Your task to perform on an android device: add a contact in the contacts app Image 0: 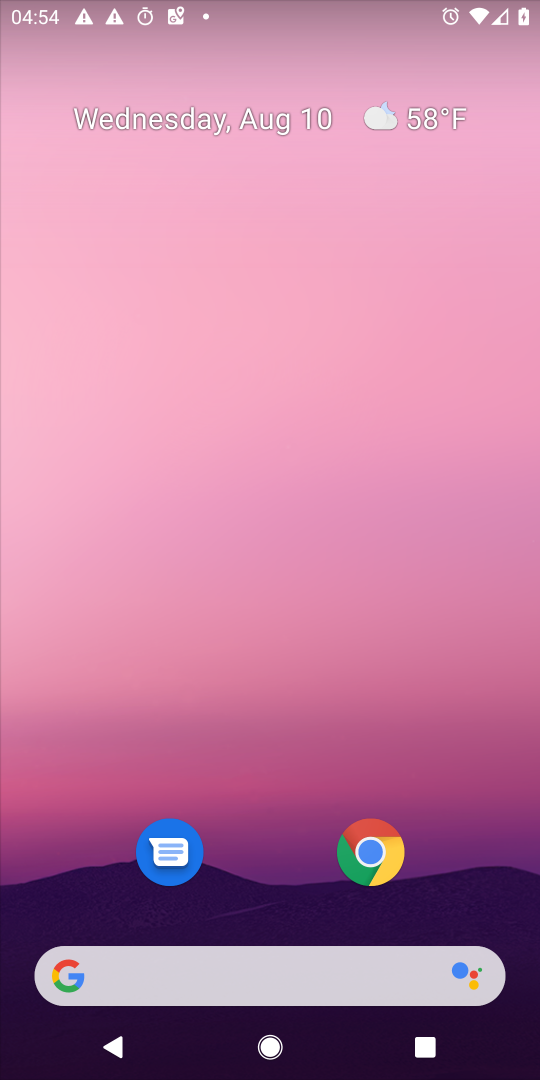
Step 0: drag from (255, 876) to (162, 41)
Your task to perform on an android device: add a contact in the contacts app Image 1: 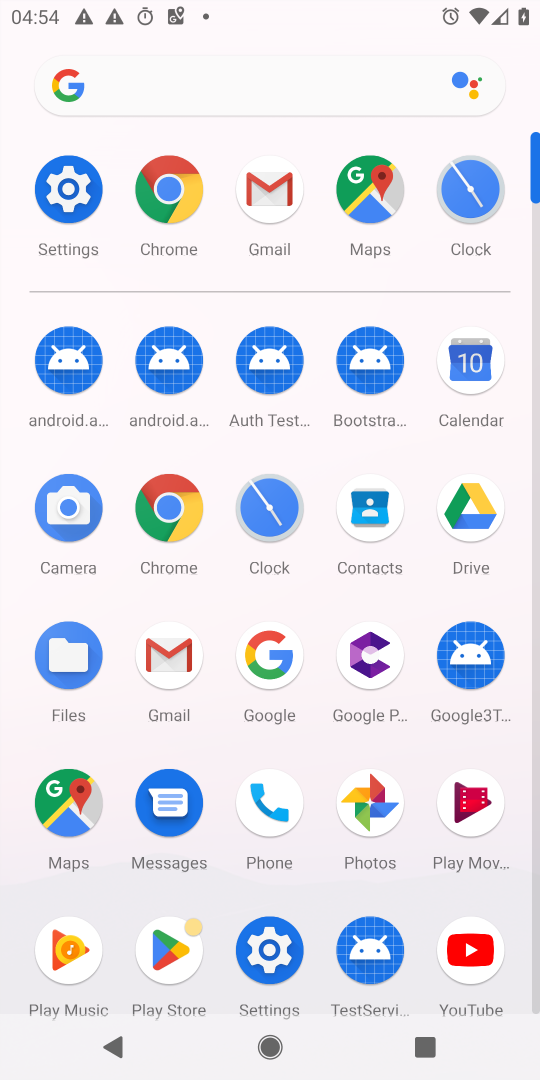
Step 1: click (377, 502)
Your task to perform on an android device: add a contact in the contacts app Image 2: 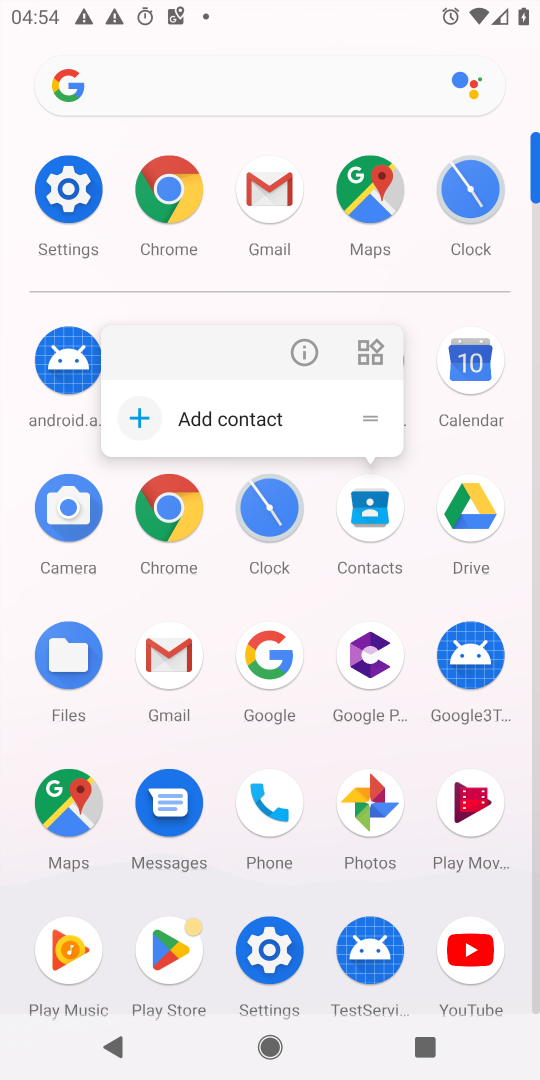
Step 2: click (377, 502)
Your task to perform on an android device: add a contact in the contacts app Image 3: 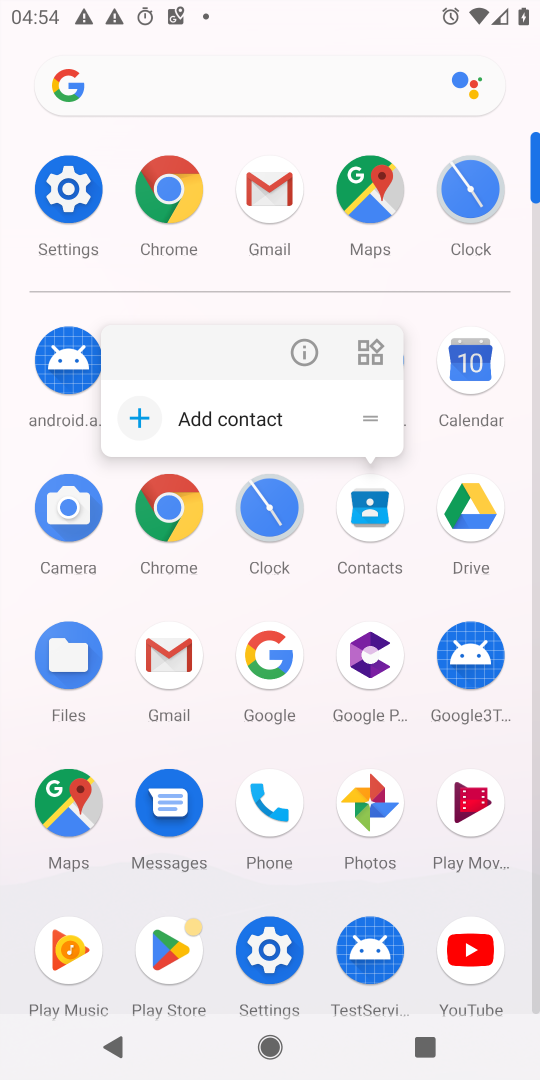
Step 3: click (377, 497)
Your task to perform on an android device: add a contact in the contacts app Image 4: 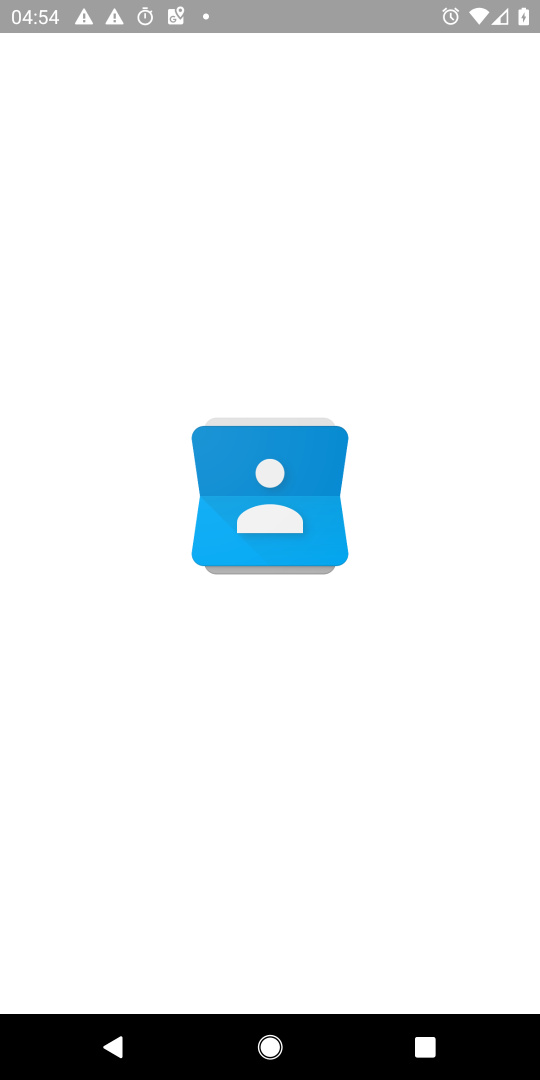
Step 4: click (370, 513)
Your task to perform on an android device: add a contact in the contacts app Image 5: 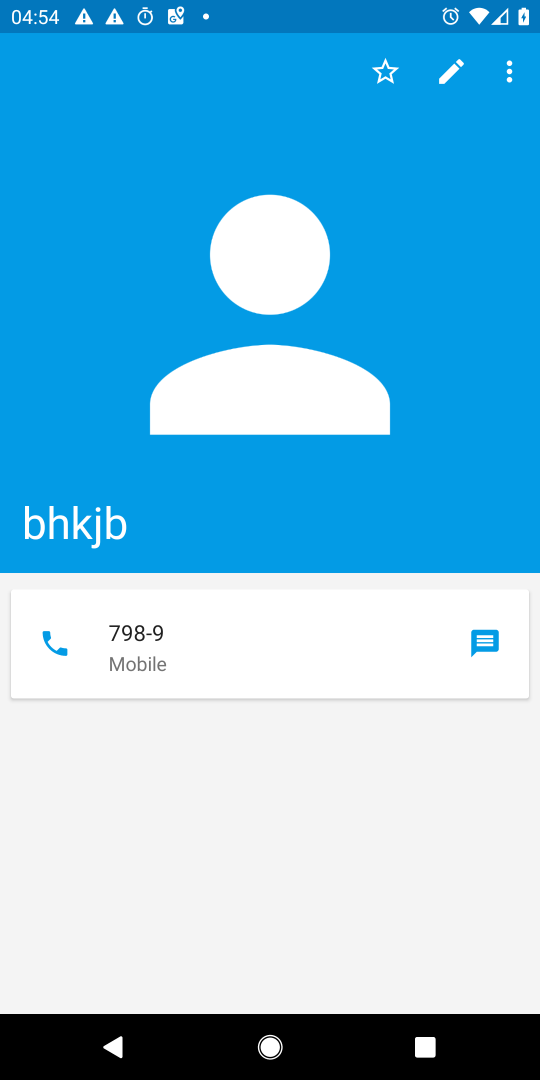
Step 5: press back button
Your task to perform on an android device: add a contact in the contacts app Image 6: 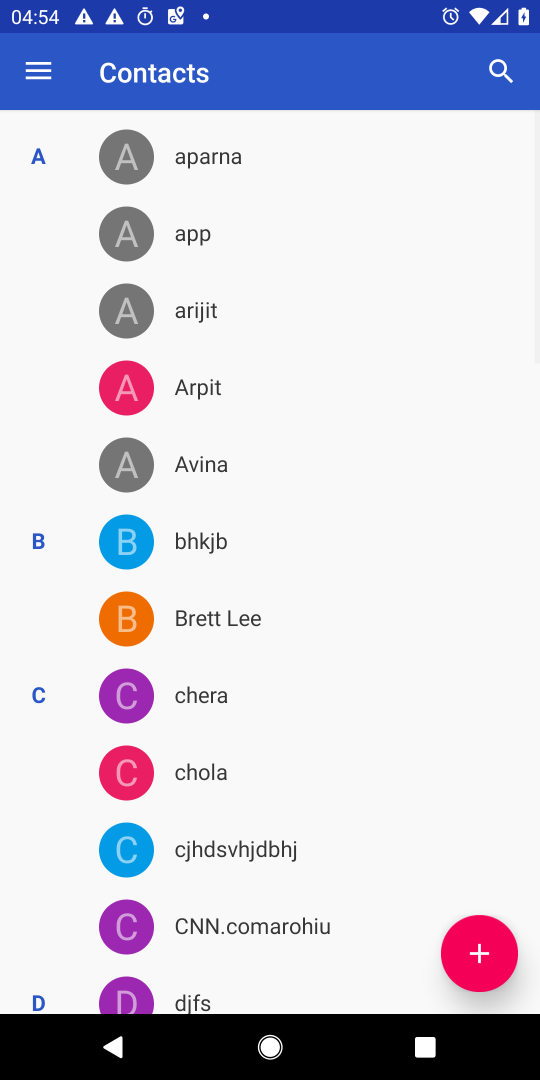
Step 6: click (481, 939)
Your task to perform on an android device: add a contact in the contacts app Image 7: 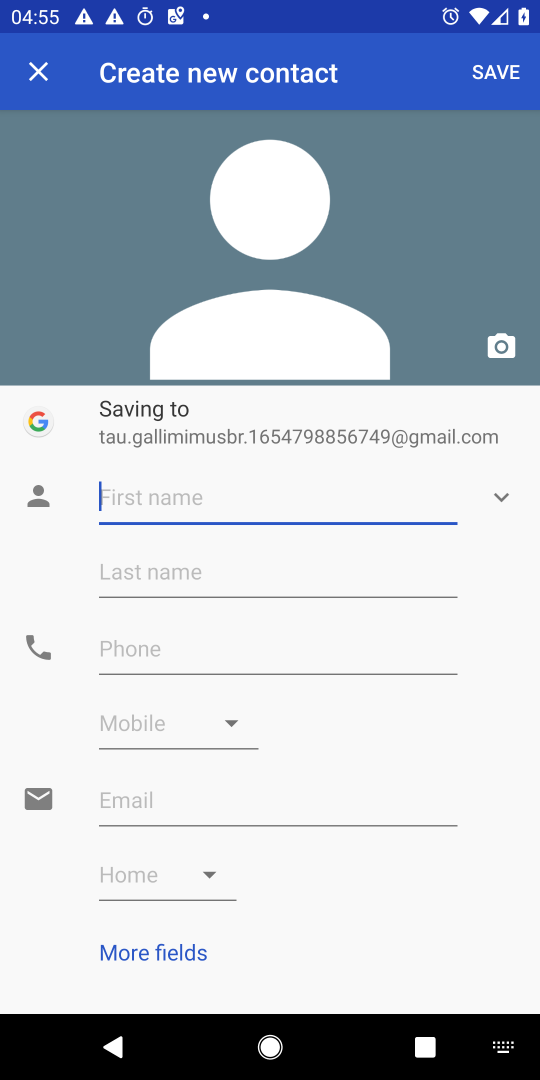
Step 7: click (273, 512)
Your task to perform on an android device: add a contact in the contacts app Image 8: 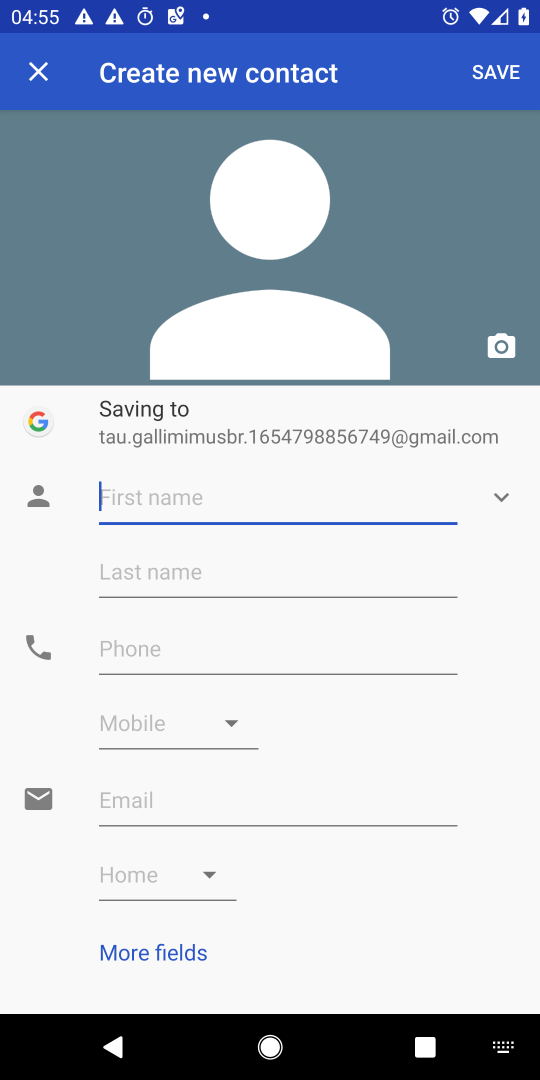
Step 8: type "zxcvb"
Your task to perform on an android device: add a contact in the contacts app Image 9: 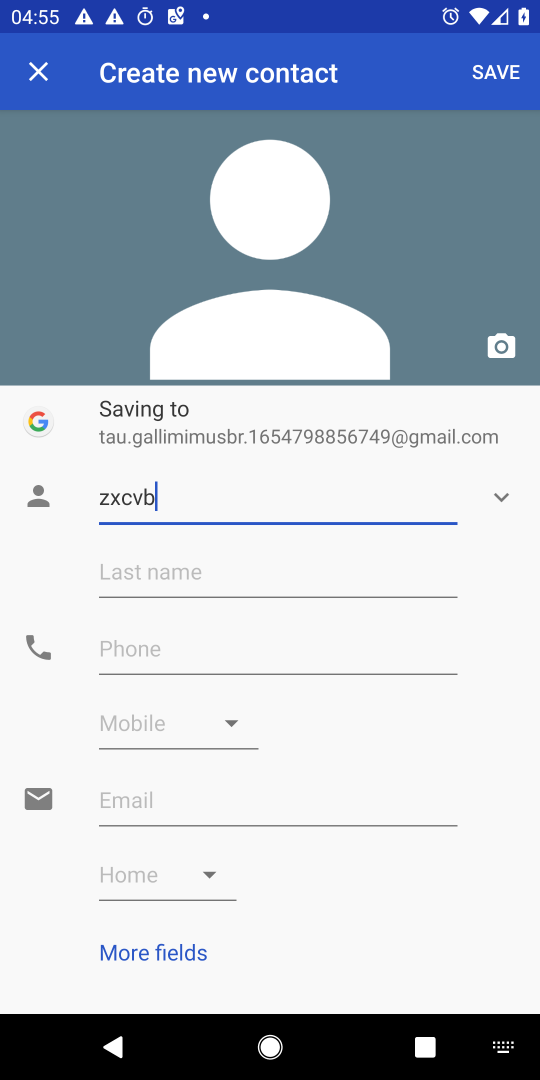
Step 9: type ""
Your task to perform on an android device: add a contact in the contacts app Image 10: 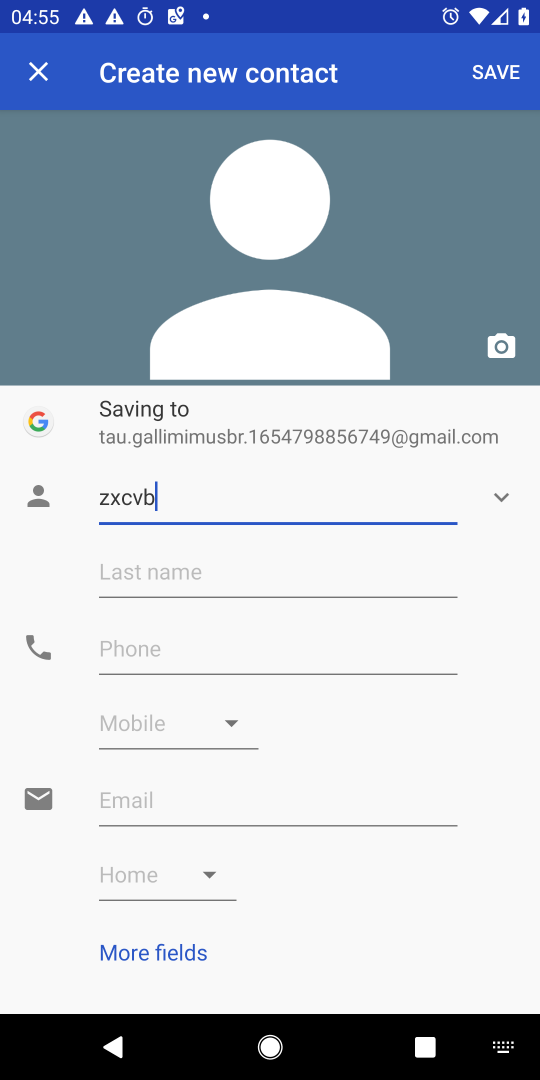
Step 10: click (497, 91)
Your task to perform on an android device: add a contact in the contacts app Image 11: 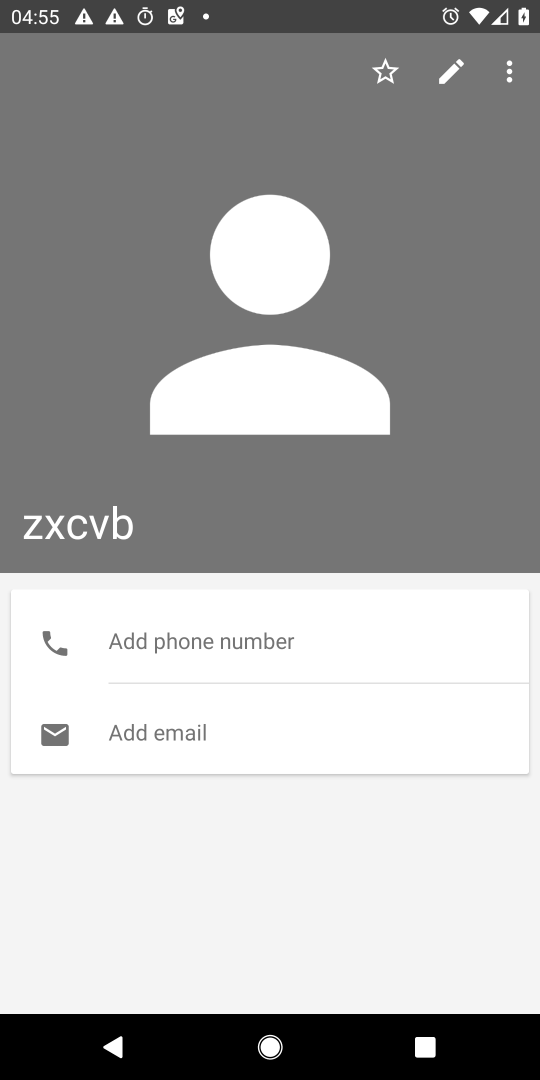
Step 11: task complete